Your task to perform on an android device: open wifi settings Image 0: 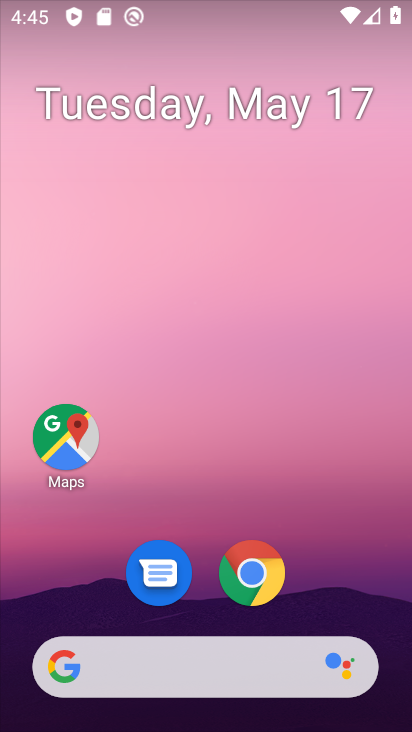
Step 0: press home button
Your task to perform on an android device: open wifi settings Image 1: 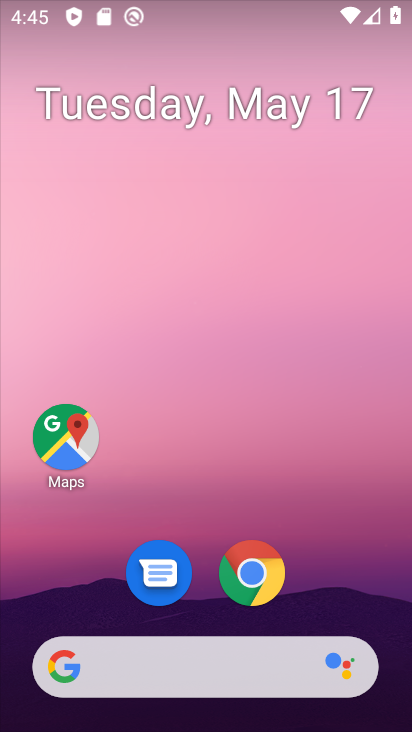
Step 1: click (205, 0)
Your task to perform on an android device: open wifi settings Image 2: 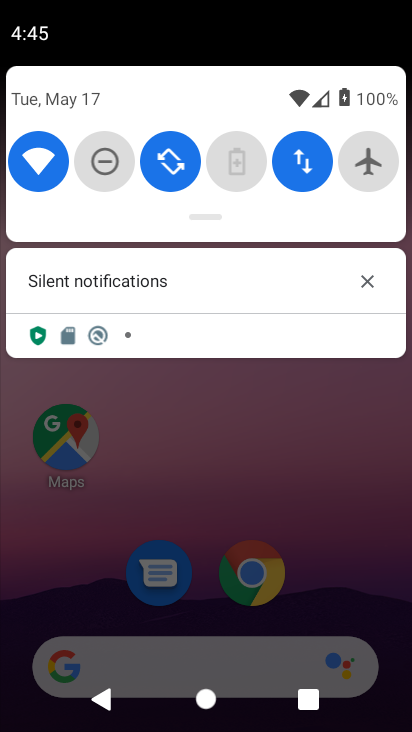
Step 2: drag from (295, 629) to (147, 8)
Your task to perform on an android device: open wifi settings Image 3: 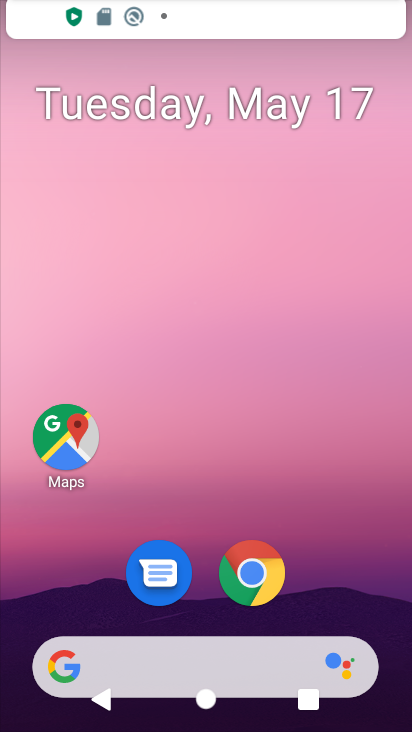
Step 3: drag from (248, 538) to (206, 149)
Your task to perform on an android device: open wifi settings Image 4: 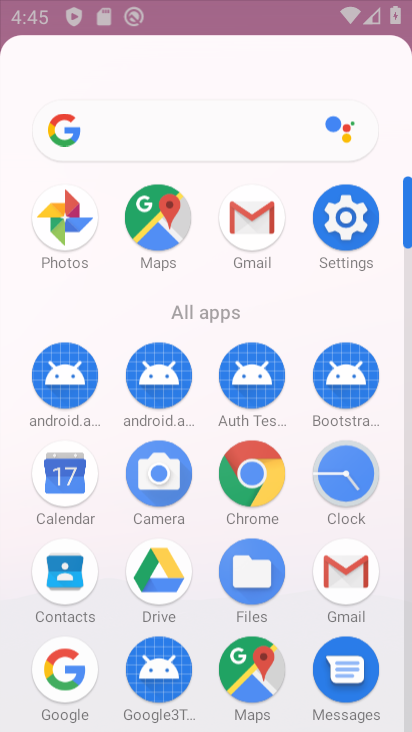
Step 4: drag from (278, 563) to (217, 83)
Your task to perform on an android device: open wifi settings Image 5: 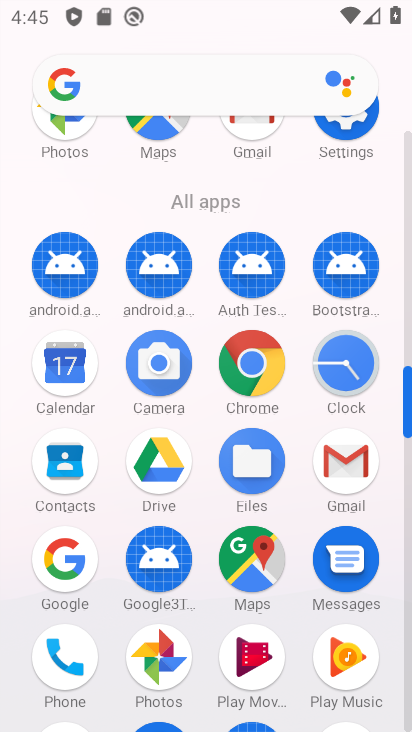
Step 5: drag from (269, 360) to (228, 30)
Your task to perform on an android device: open wifi settings Image 6: 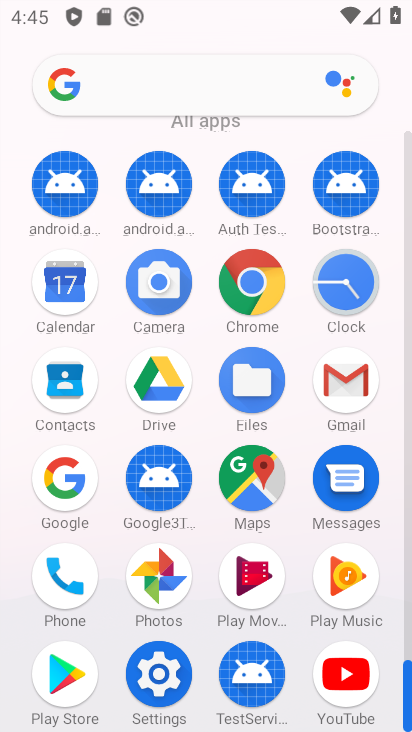
Step 6: drag from (183, 347) to (181, 84)
Your task to perform on an android device: open wifi settings Image 7: 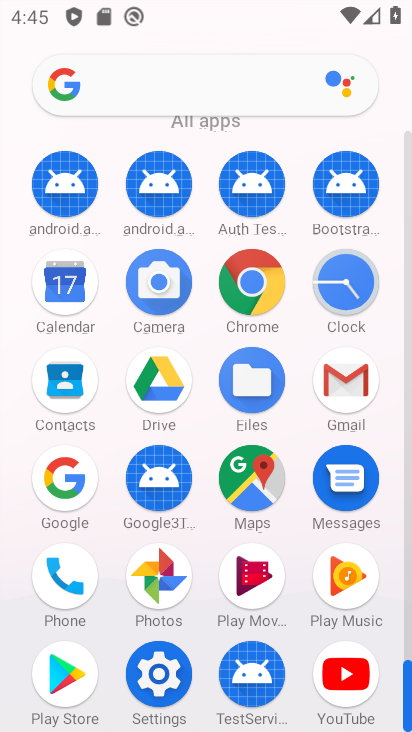
Step 7: drag from (196, 295) to (186, 115)
Your task to perform on an android device: open wifi settings Image 8: 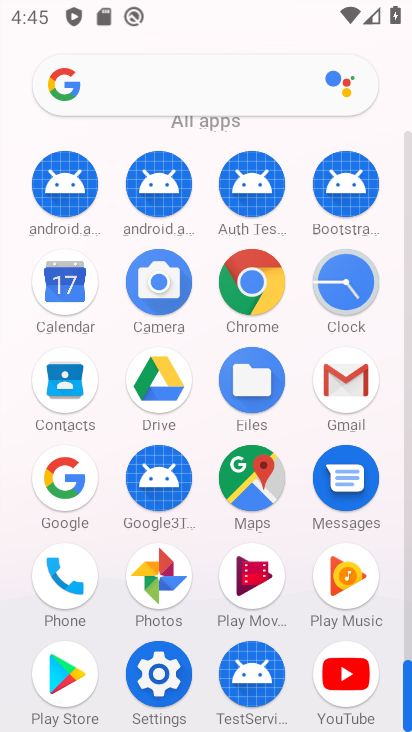
Step 8: drag from (225, 163) to (212, 80)
Your task to perform on an android device: open wifi settings Image 9: 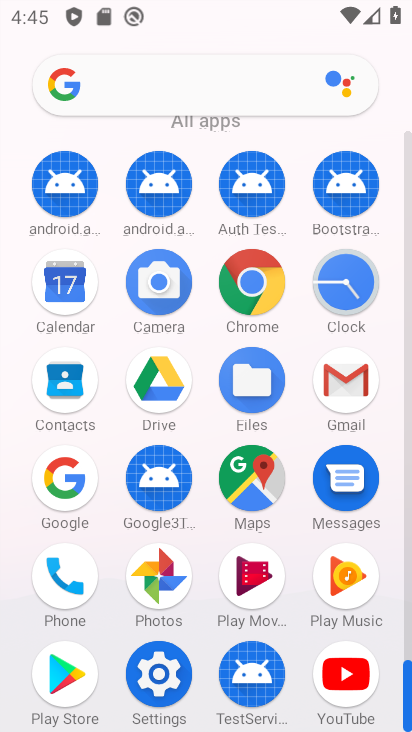
Step 9: drag from (231, 255) to (231, 216)
Your task to perform on an android device: open wifi settings Image 10: 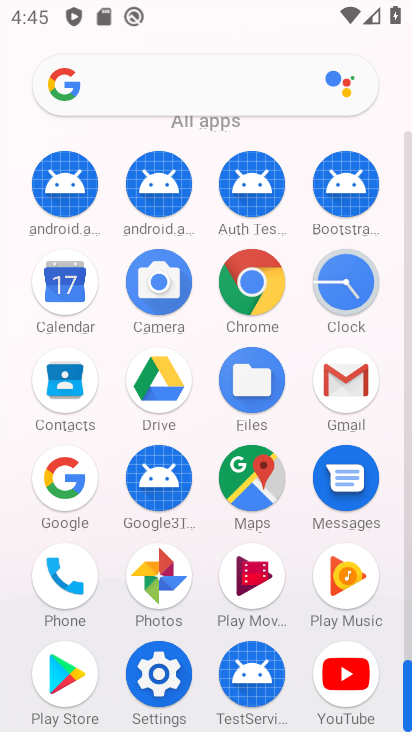
Step 10: drag from (260, 263) to (254, 218)
Your task to perform on an android device: open wifi settings Image 11: 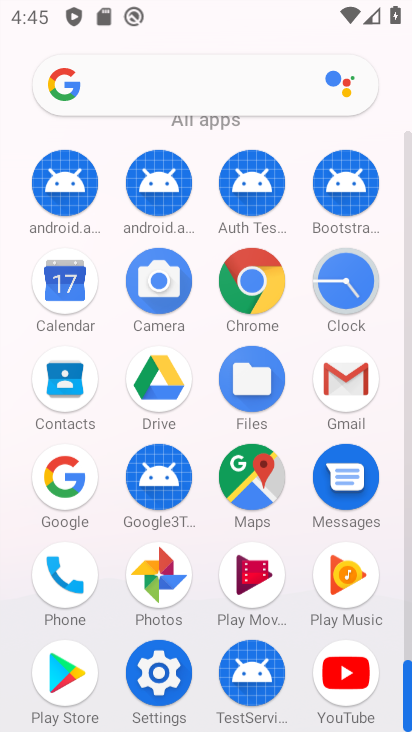
Step 11: drag from (272, 337) to (248, 124)
Your task to perform on an android device: open wifi settings Image 12: 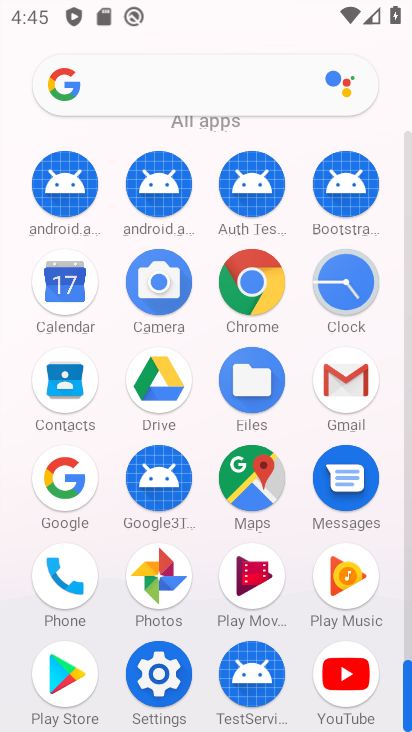
Step 12: drag from (248, 259) to (287, 438)
Your task to perform on an android device: open wifi settings Image 13: 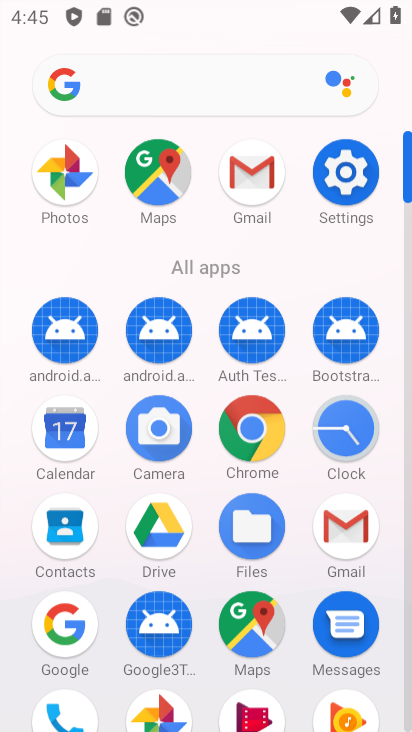
Step 13: drag from (244, 237) to (309, 618)
Your task to perform on an android device: open wifi settings Image 14: 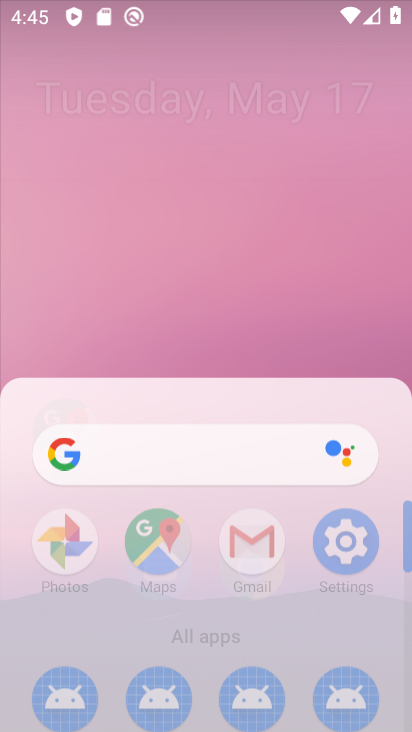
Step 14: drag from (240, 237) to (248, 561)
Your task to perform on an android device: open wifi settings Image 15: 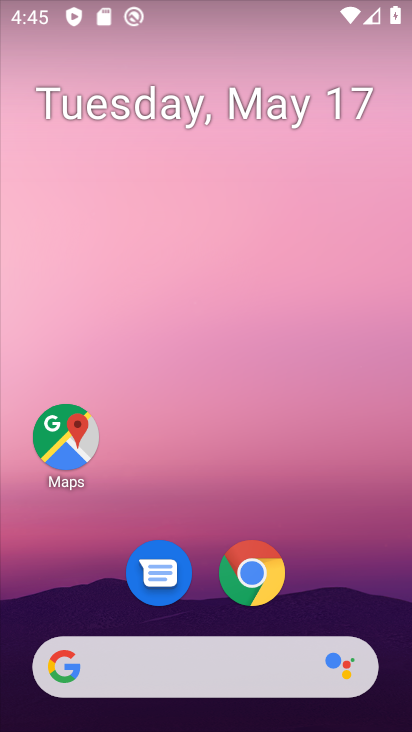
Step 15: drag from (192, 266) to (235, 564)
Your task to perform on an android device: open wifi settings Image 16: 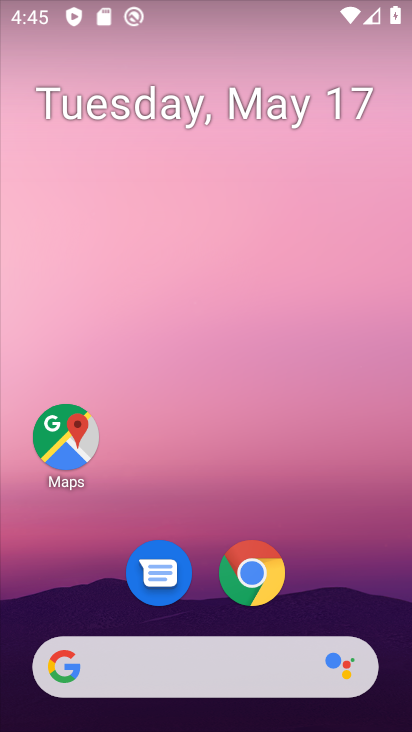
Step 16: drag from (239, 629) to (191, 159)
Your task to perform on an android device: open wifi settings Image 17: 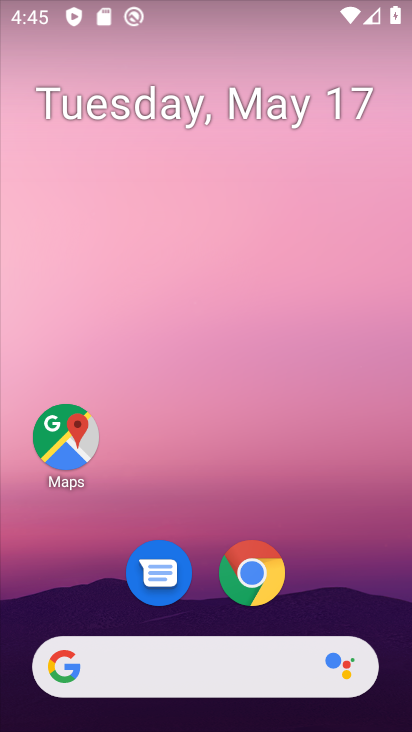
Step 17: drag from (195, 465) to (119, 34)
Your task to perform on an android device: open wifi settings Image 18: 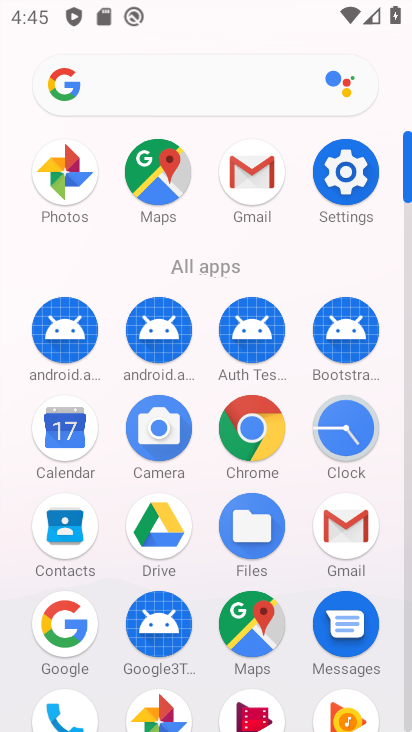
Step 18: drag from (185, 596) to (130, 151)
Your task to perform on an android device: open wifi settings Image 19: 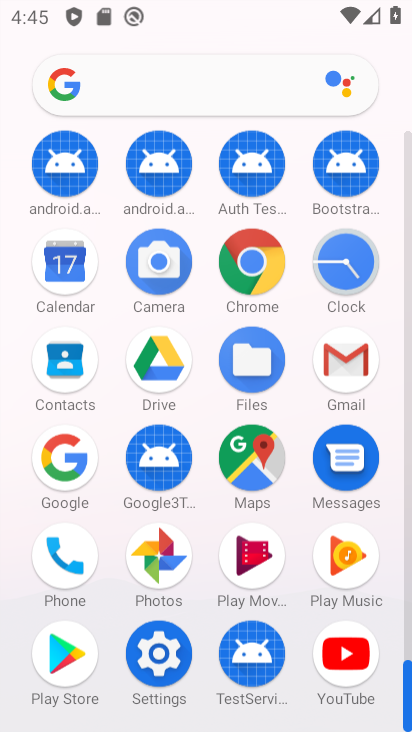
Step 19: drag from (244, 417) to (202, 127)
Your task to perform on an android device: open wifi settings Image 20: 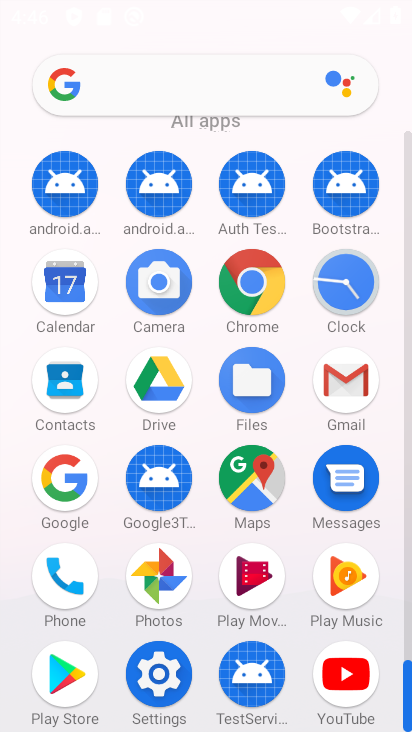
Step 20: click (167, 667)
Your task to perform on an android device: open wifi settings Image 21: 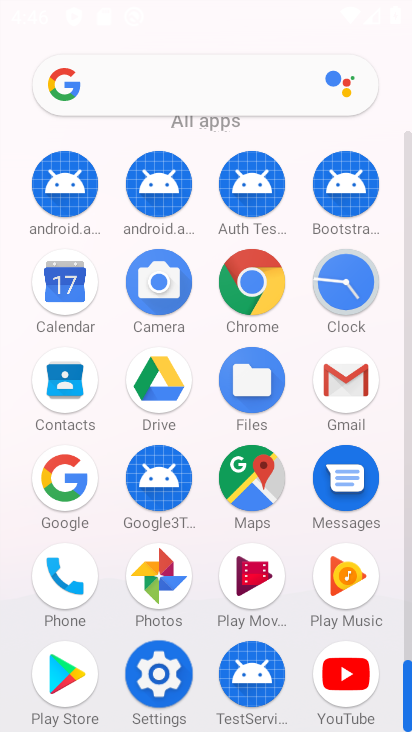
Step 21: click (165, 666)
Your task to perform on an android device: open wifi settings Image 22: 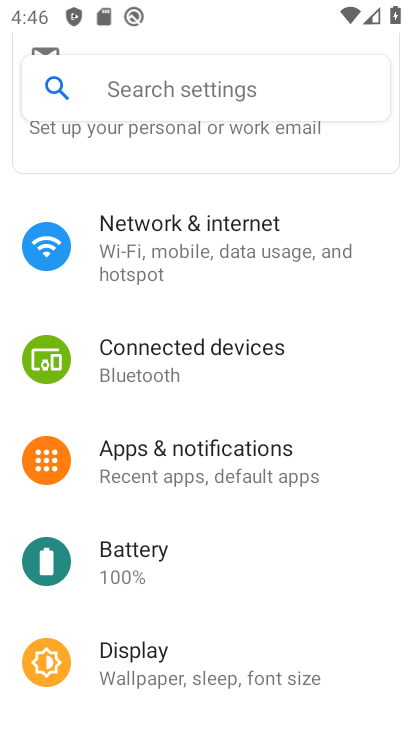
Step 22: click (147, 454)
Your task to perform on an android device: open wifi settings Image 23: 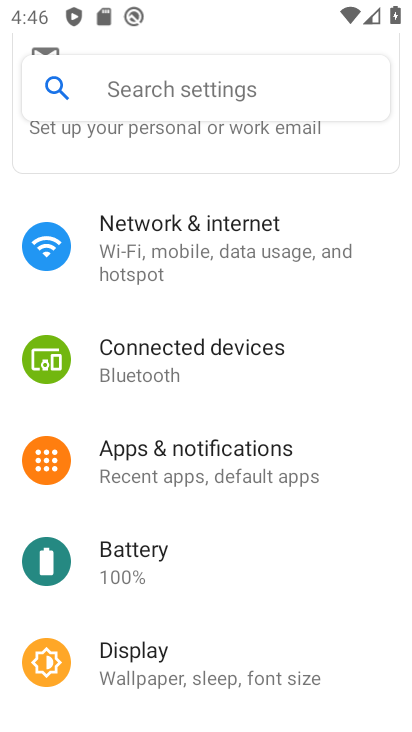
Step 23: click (151, 452)
Your task to perform on an android device: open wifi settings Image 24: 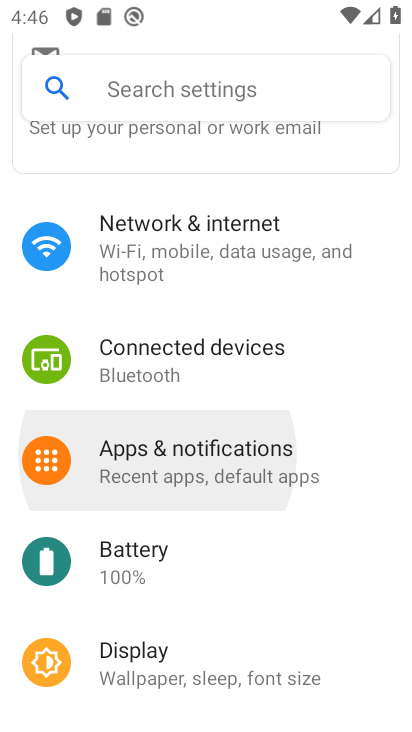
Step 24: click (152, 451)
Your task to perform on an android device: open wifi settings Image 25: 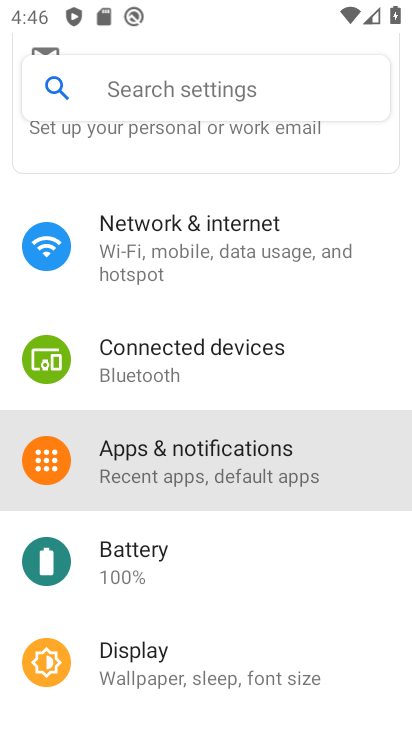
Step 25: click (152, 451)
Your task to perform on an android device: open wifi settings Image 26: 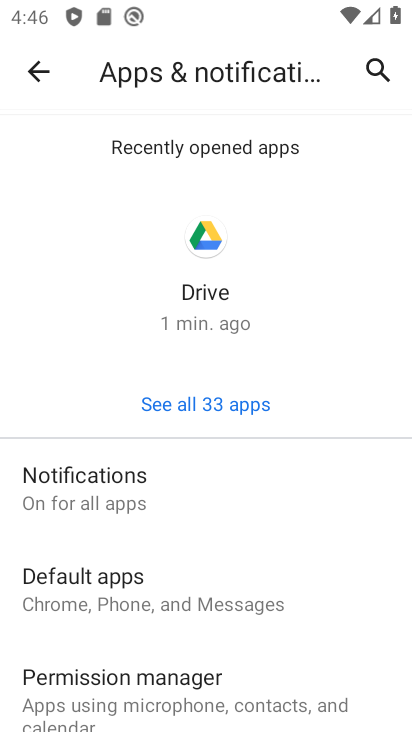
Step 26: drag from (122, 565) to (120, 252)
Your task to perform on an android device: open wifi settings Image 27: 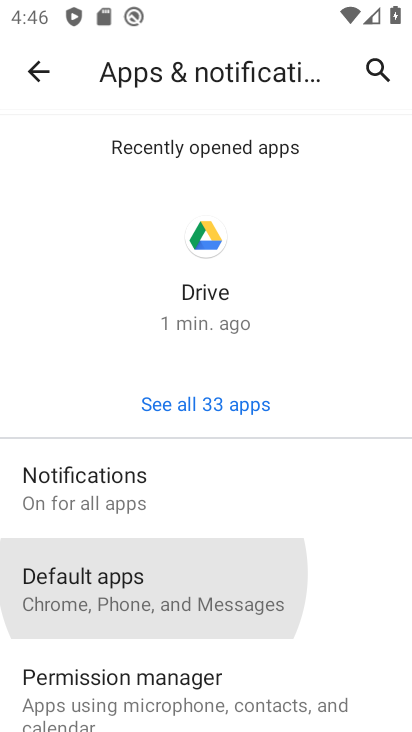
Step 27: drag from (245, 522) to (245, 242)
Your task to perform on an android device: open wifi settings Image 28: 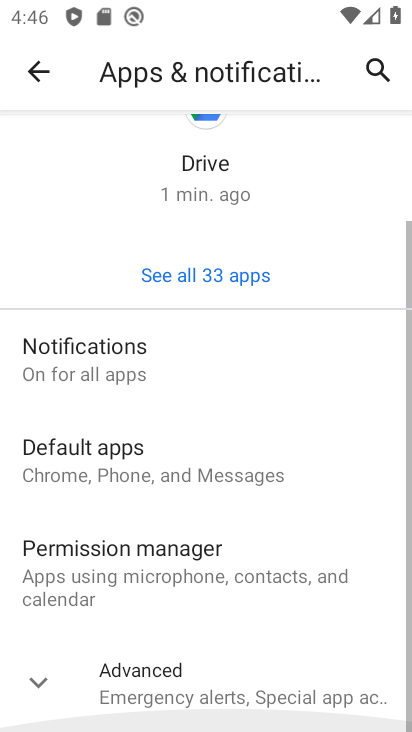
Step 28: drag from (239, 298) to (209, 101)
Your task to perform on an android device: open wifi settings Image 29: 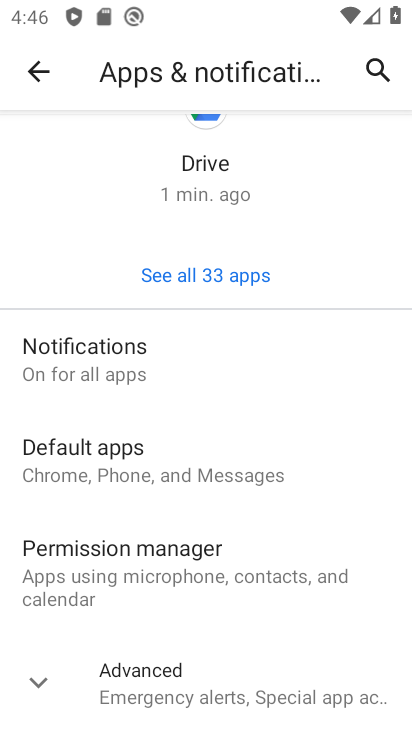
Step 29: click (92, 360)
Your task to perform on an android device: open wifi settings Image 30: 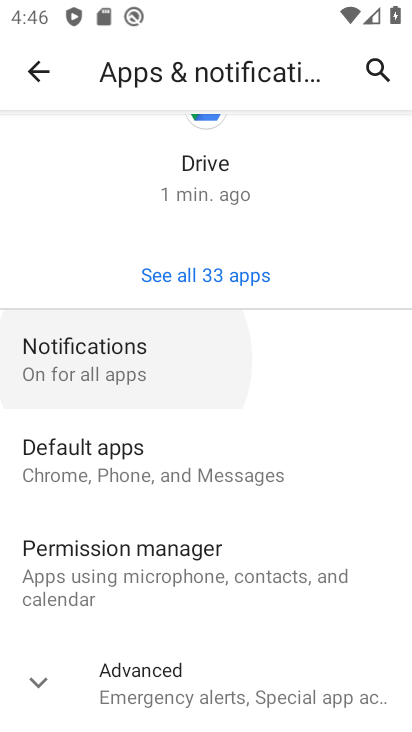
Step 30: click (79, 372)
Your task to perform on an android device: open wifi settings Image 31: 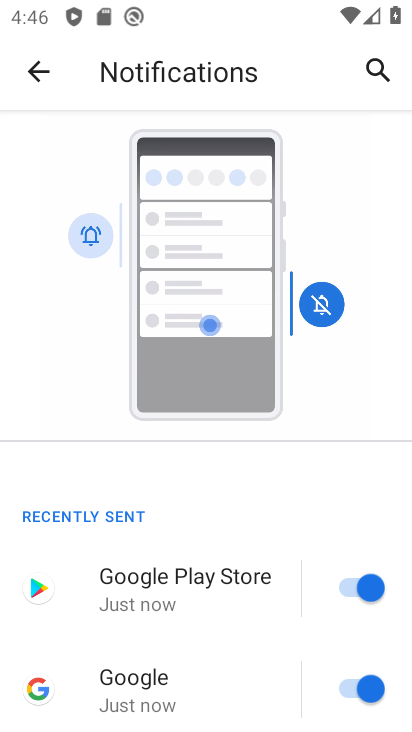
Step 31: drag from (193, 378) to (162, 153)
Your task to perform on an android device: open wifi settings Image 32: 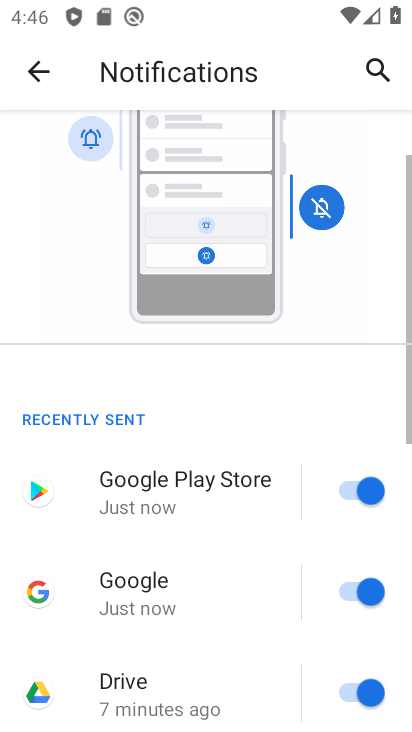
Step 32: drag from (238, 626) to (192, 134)
Your task to perform on an android device: open wifi settings Image 33: 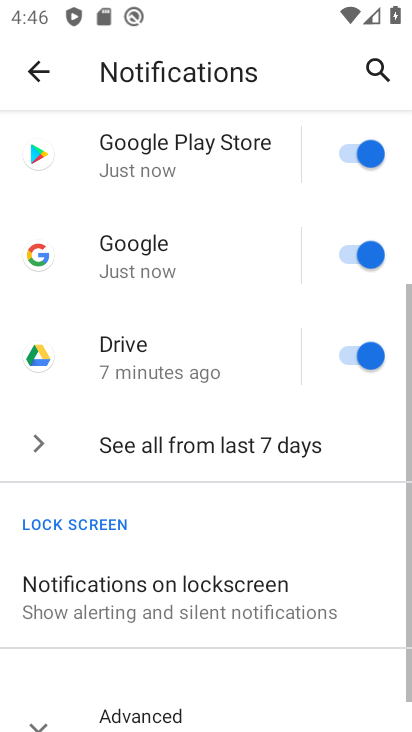
Step 33: drag from (196, 462) to (156, 157)
Your task to perform on an android device: open wifi settings Image 34: 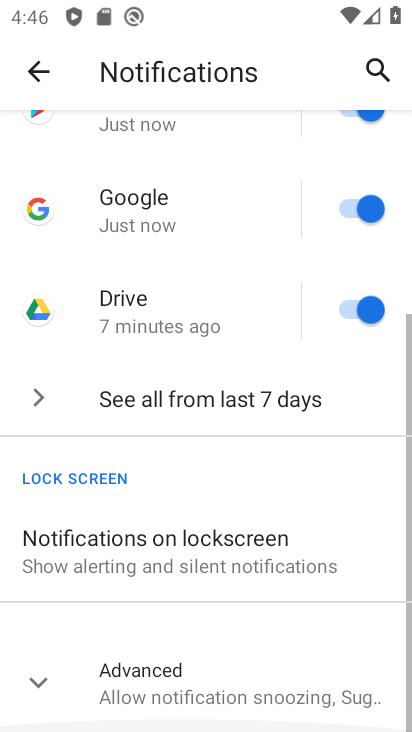
Step 34: drag from (225, 452) to (269, 83)
Your task to perform on an android device: open wifi settings Image 35: 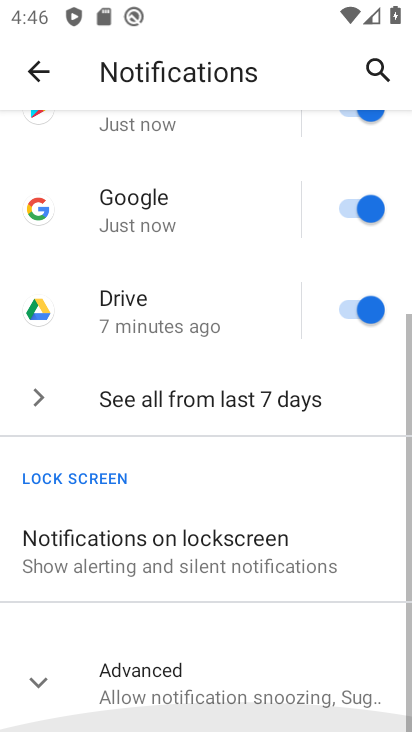
Step 35: drag from (161, 427) to (192, 41)
Your task to perform on an android device: open wifi settings Image 36: 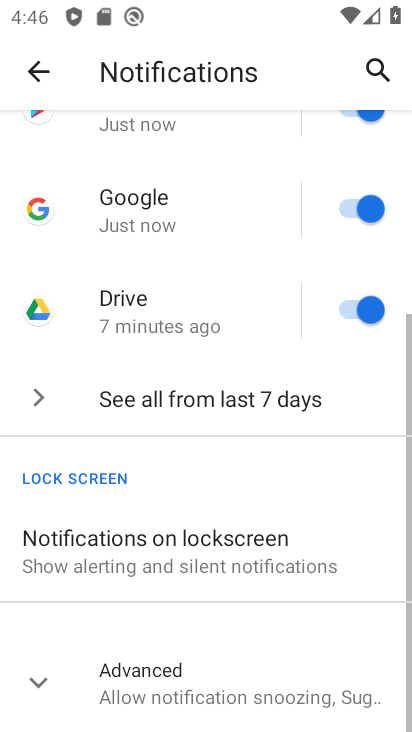
Step 36: drag from (218, 595) to (187, 191)
Your task to perform on an android device: open wifi settings Image 37: 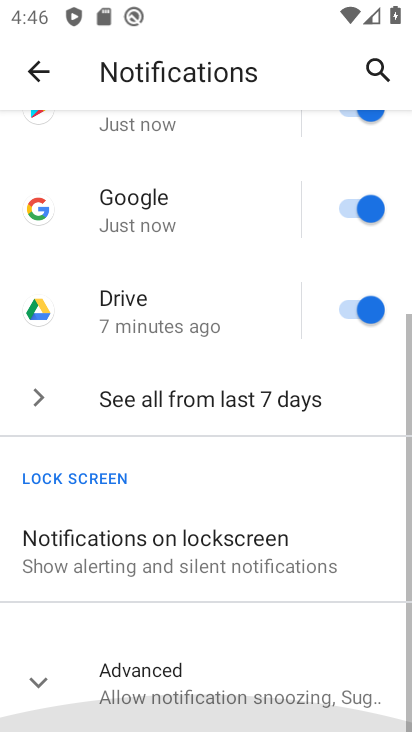
Step 37: drag from (125, 459) to (133, 164)
Your task to perform on an android device: open wifi settings Image 38: 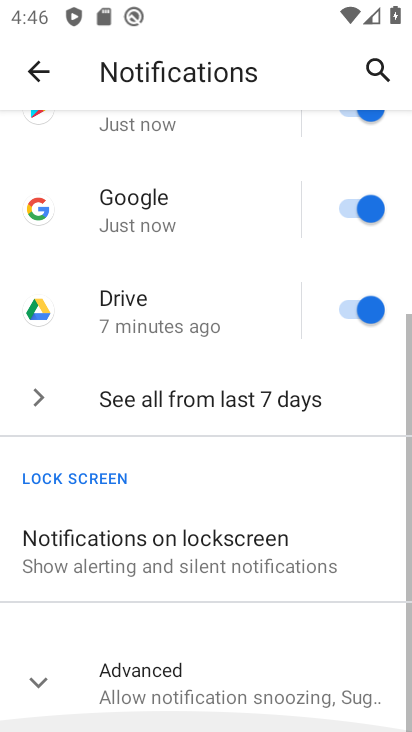
Step 38: drag from (183, 387) to (205, 169)
Your task to perform on an android device: open wifi settings Image 39: 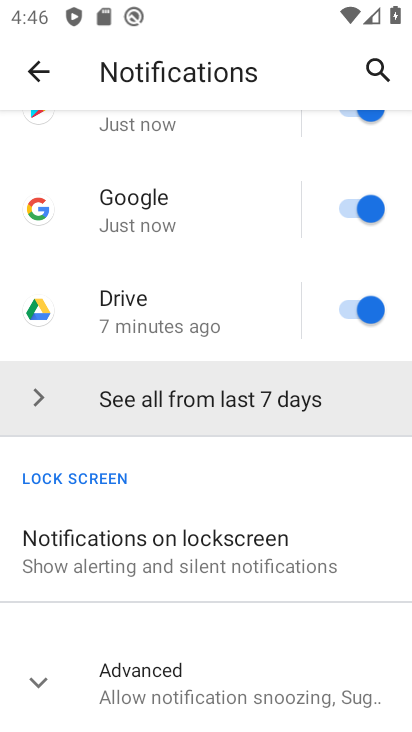
Step 39: drag from (193, 398) to (220, 101)
Your task to perform on an android device: open wifi settings Image 40: 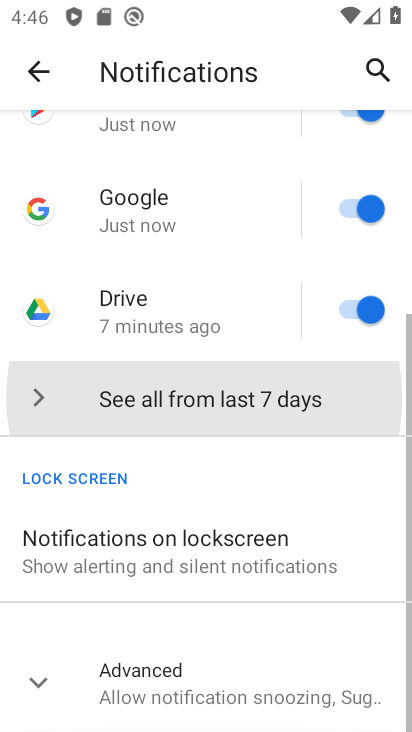
Step 40: drag from (243, 544) to (208, 93)
Your task to perform on an android device: open wifi settings Image 41: 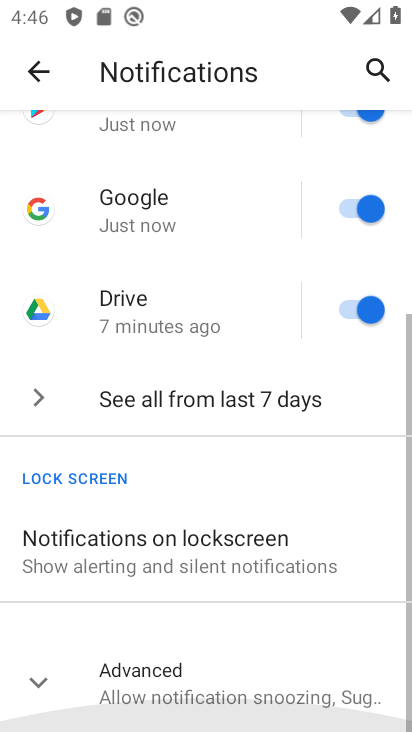
Step 41: drag from (120, 461) to (152, 16)
Your task to perform on an android device: open wifi settings Image 42: 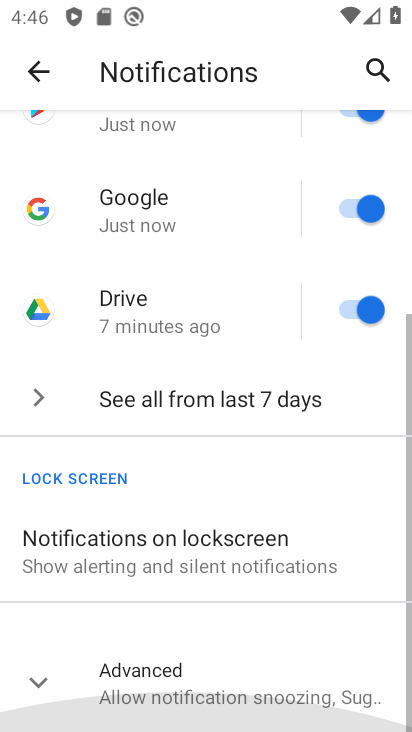
Step 42: drag from (171, 424) to (229, 102)
Your task to perform on an android device: open wifi settings Image 43: 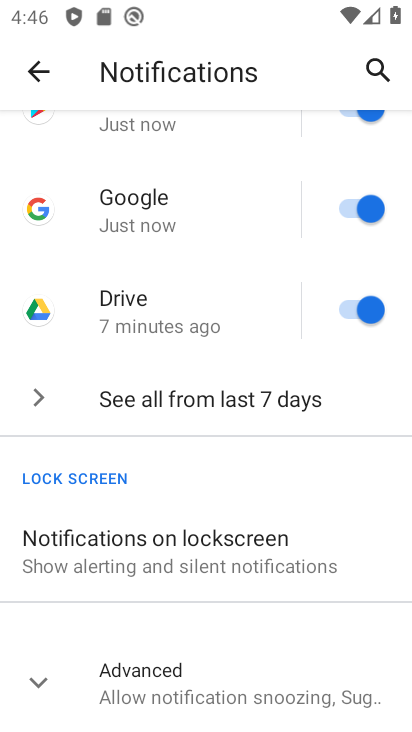
Step 43: drag from (258, 463) to (286, 218)
Your task to perform on an android device: open wifi settings Image 44: 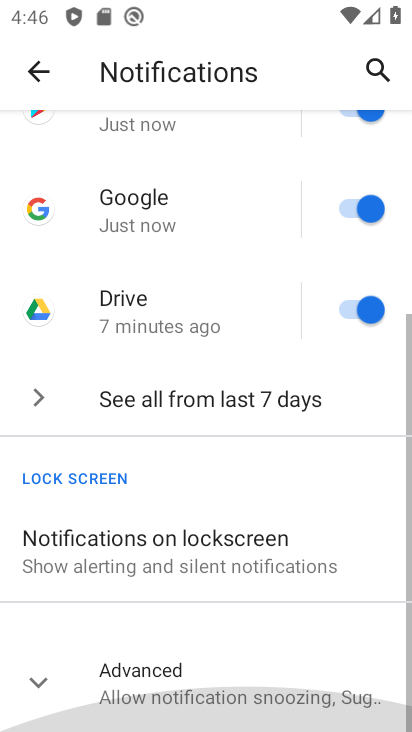
Step 44: drag from (220, 493) to (189, 84)
Your task to perform on an android device: open wifi settings Image 45: 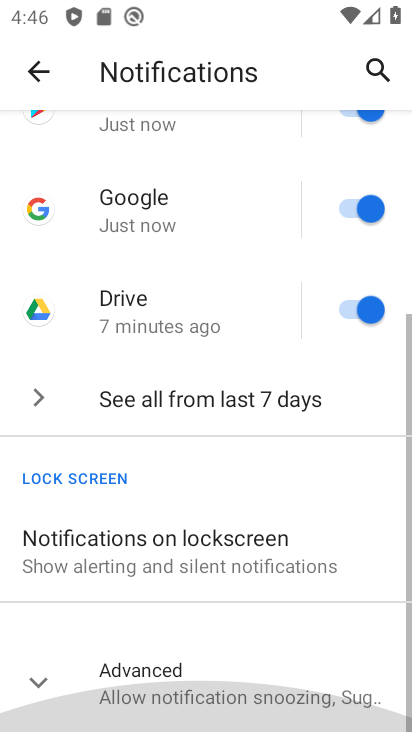
Step 45: drag from (190, 473) to (186, 102)
Your task to perform on an android device: open wifi settings Image 46: 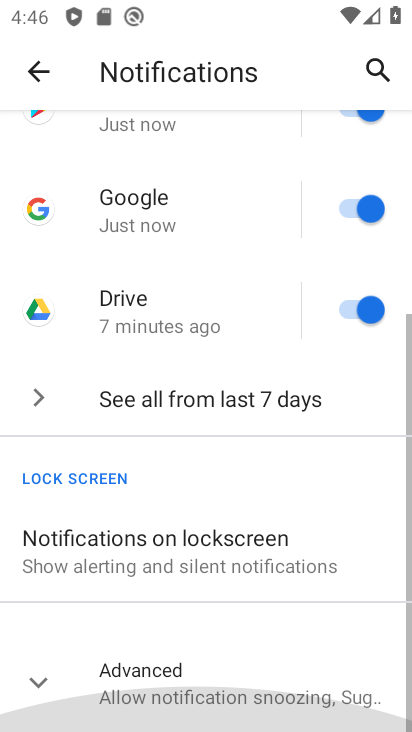
Step 46: drag from (222, 473) to (227, 102)
Your task to perform on an android device: open wifi settings Image 47: 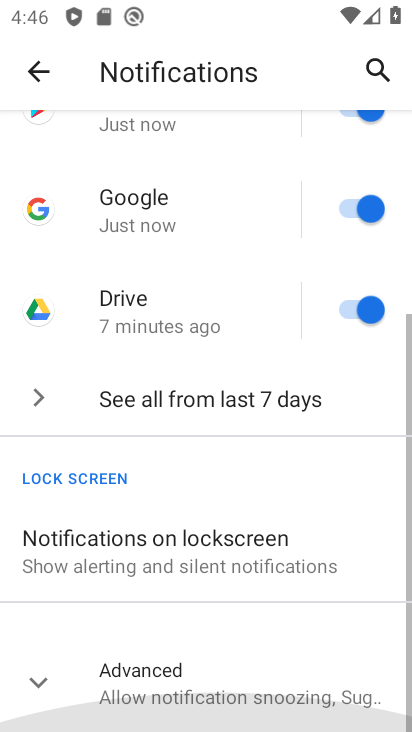
Step 47: drag from (232, 349) to (199, 106)
Your task to perform on an android device: open wifi settings Image 48: 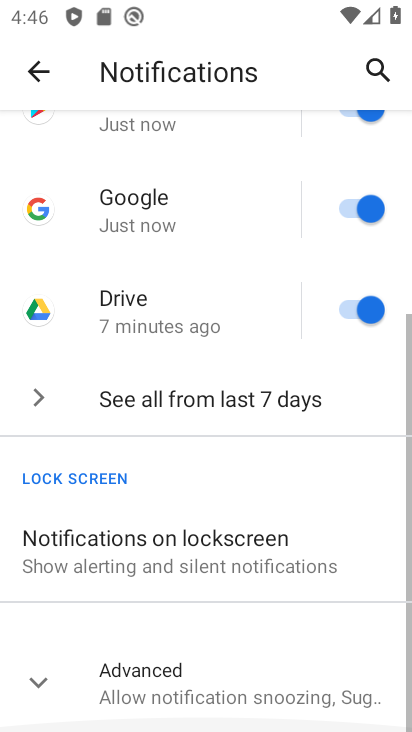
Step 48: drag from (159, 536) to (134, 214)
Your task to perform on an android device: open wifi settings Image 49: 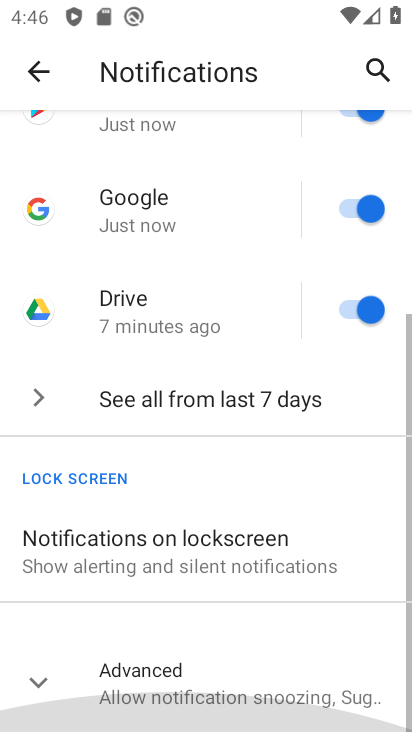
Step 49: drag from (172, 566) to (192, 295)
Your task to perform on an android device: open wifi settings Image 50: 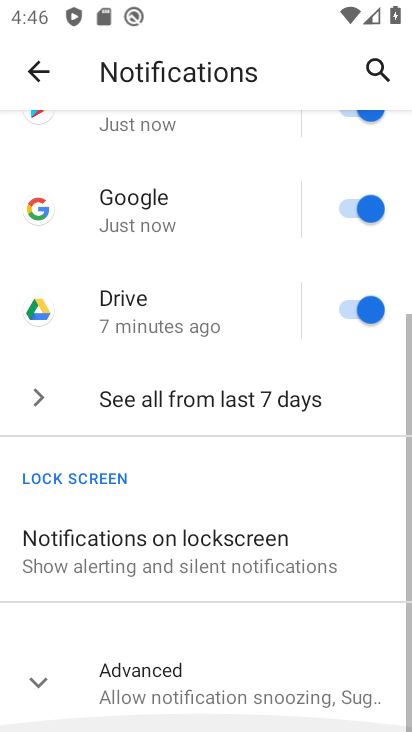
Step 50: drag from (143, 549) to (164, 224)
Your task to perform on an android device: open wifi settings Image 51: 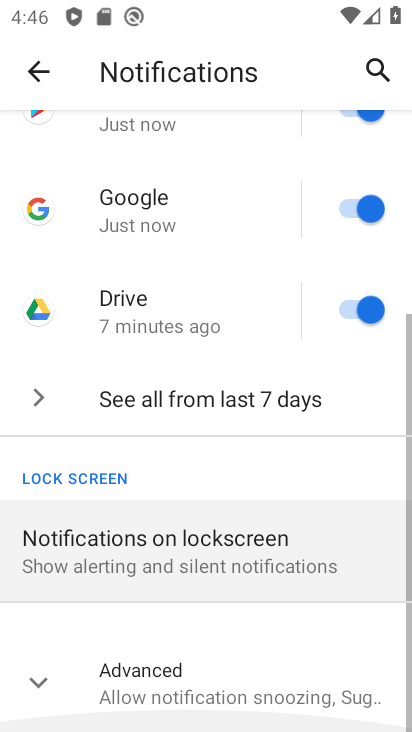
Step 51: drag from (183, 456) to (164, 247)
Your task to perform on an android device: open wifi settings Image 52: 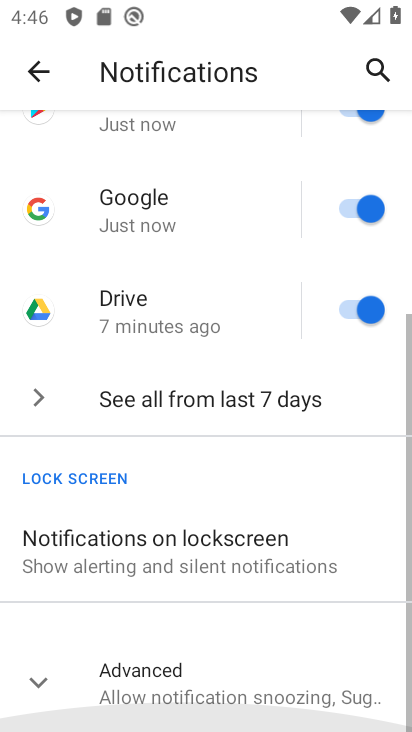
Step 52: drag from (162, 364) to (162, 292)
Your task to perform on an android device: open wifi settings Image 53: 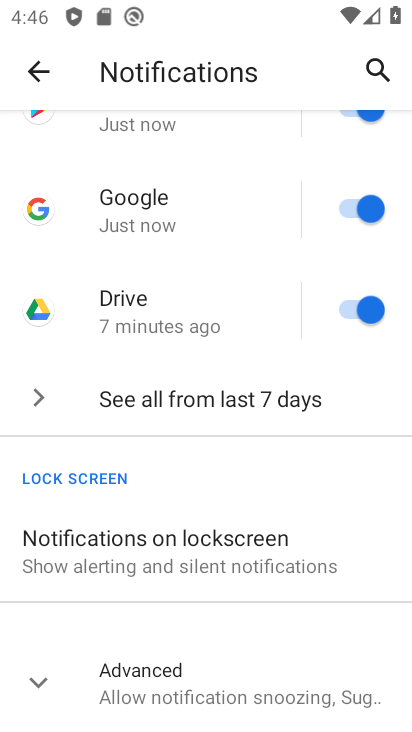
Step 53: drag from (185, 593) to (171, 279)
Your task to perform on an android device: open wifi settings Image 54: 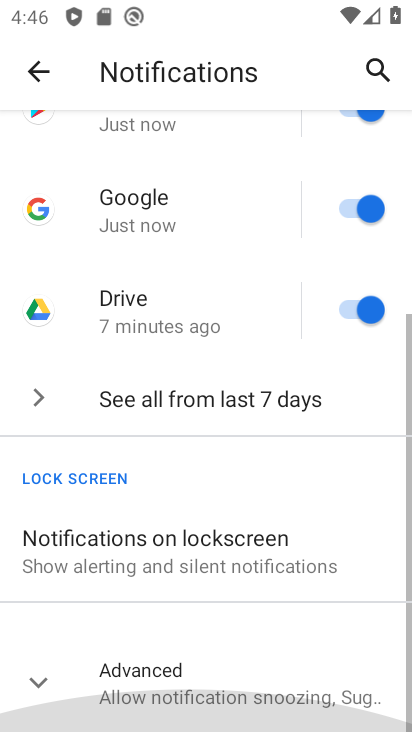
Step 54: drag from (164, 646) to (187, 192)
Your task to perform on an android device: open wifi settings Image 55: 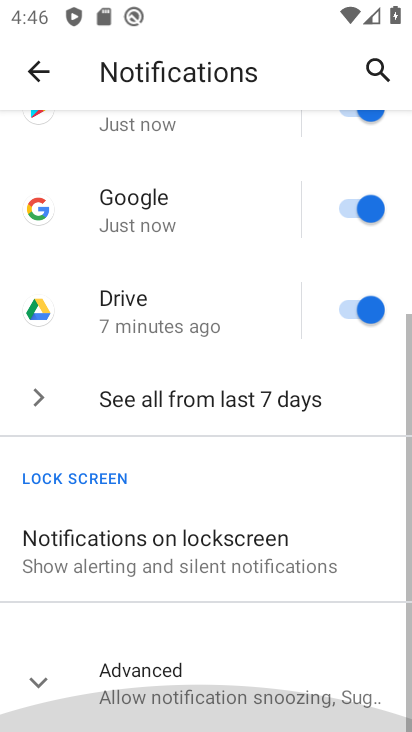
Step 55: drag from (170, 598) to (172, 189)
Your task to perform on an android device: open wifi settings Image 56: 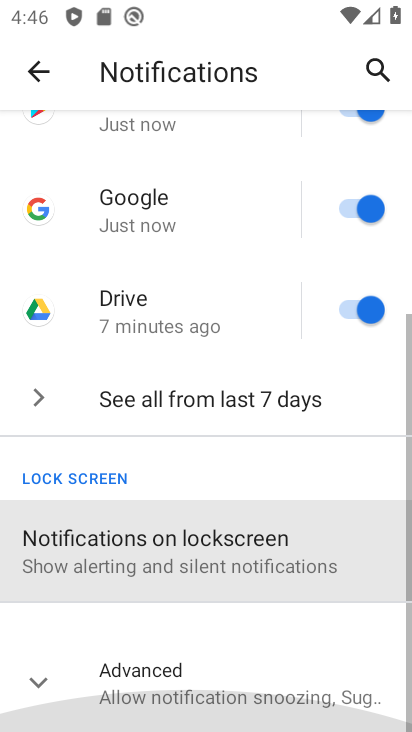
Step 56: drag from (184, 479) to (210, 134)
Your task to perform on an android device: open wifi settings Image 57: 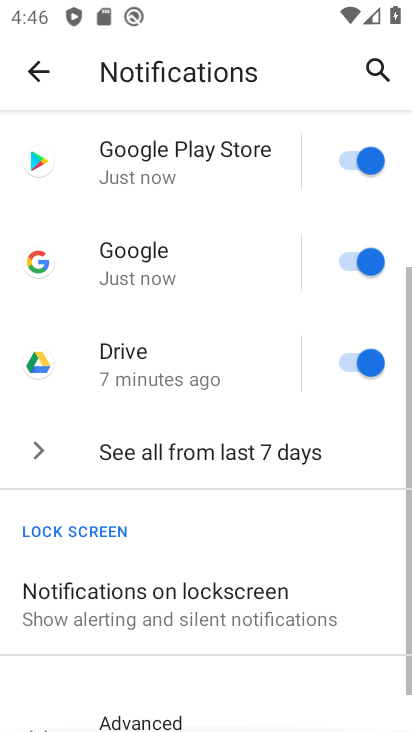
Step 57: drag from (168, 484) to (215, 146)
Your task to perform on an android device: open wifi settings Image 58: 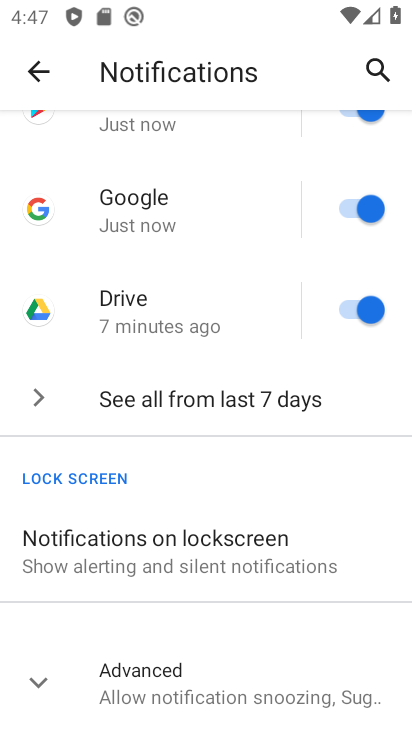
Step 58: click (154, 300)
Your task to perform on an android device: open wifi settings Image 59: 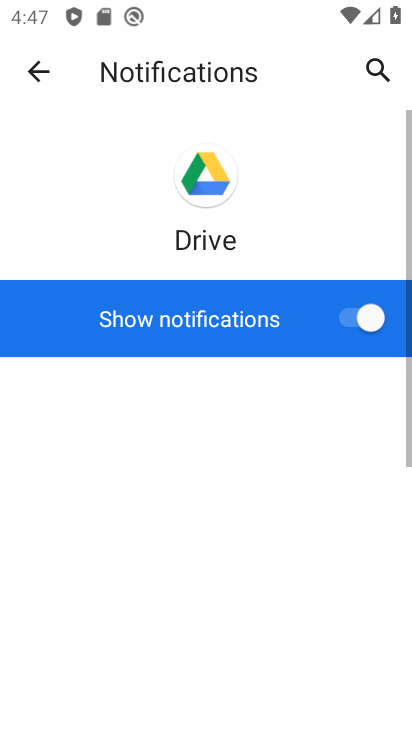
Step 59: drag from (150, 388) to (184, 194)
Your task to perform on an android device: open wifi settings Image 60: 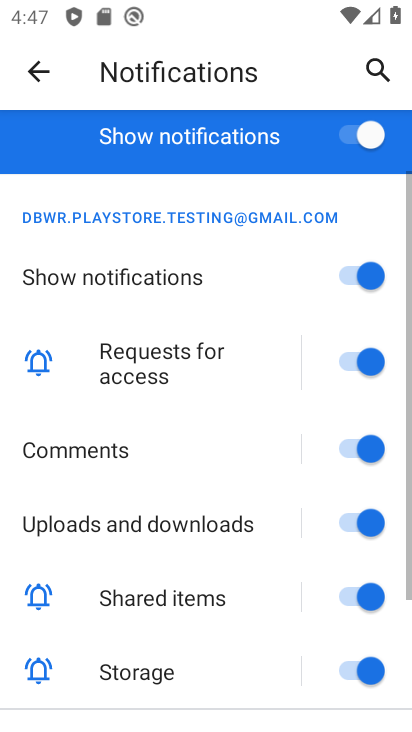
Step 60: drag from (178, 432) to (190, 272)
Your task to perform on an android device: open wifi settings Image 61: 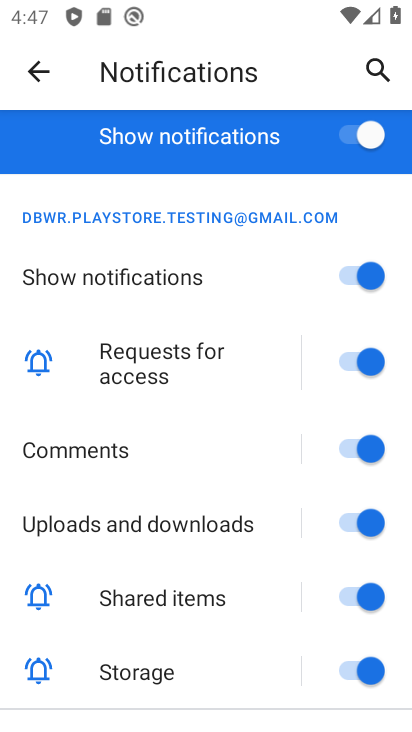
Step 61: click (32, 73)
Your task to perform on an android device: open wifi settings Image 62: 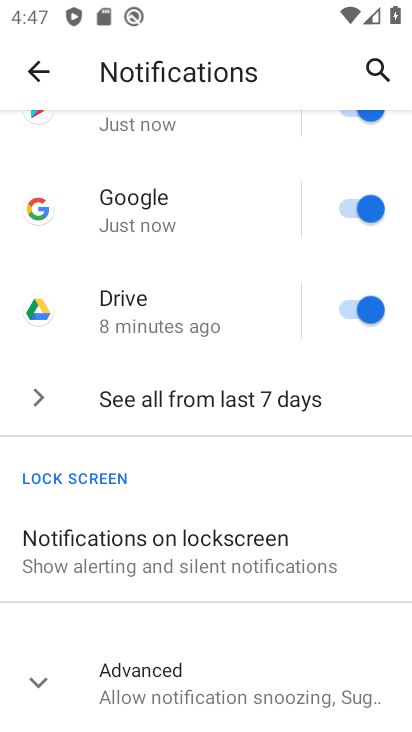
Step 62: click (74, 74)
Your task to perform on an android device: open wifi settings Image 63: 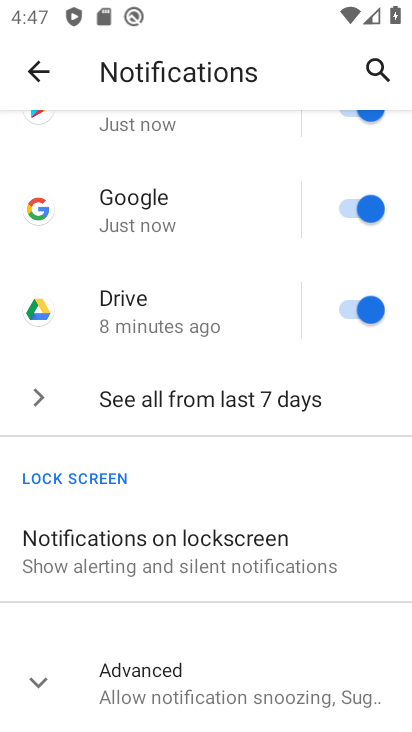
Step 63: click (43, 69)
Your task to perform on an android device: open wifi settings Image 64: 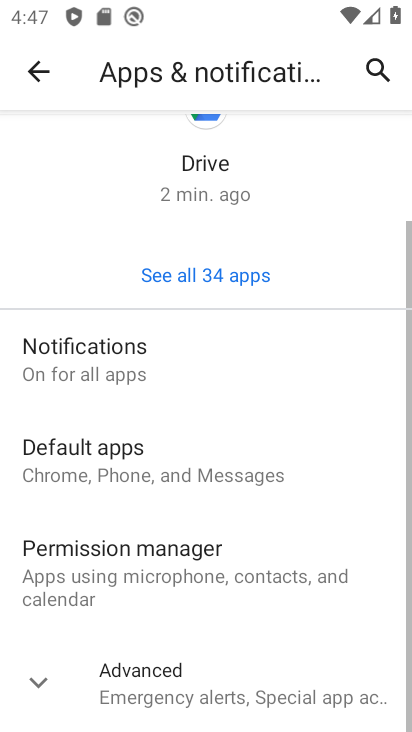
Step 64: click (76, 364)
Your task to perform on an android device: open wifi settings Image 65: 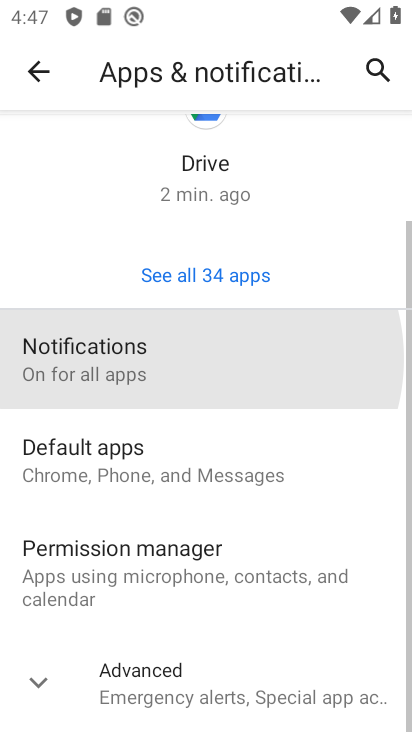
Step 65: click (74, 360)
Your task to perform on an android device: open wifi settings Image 66: 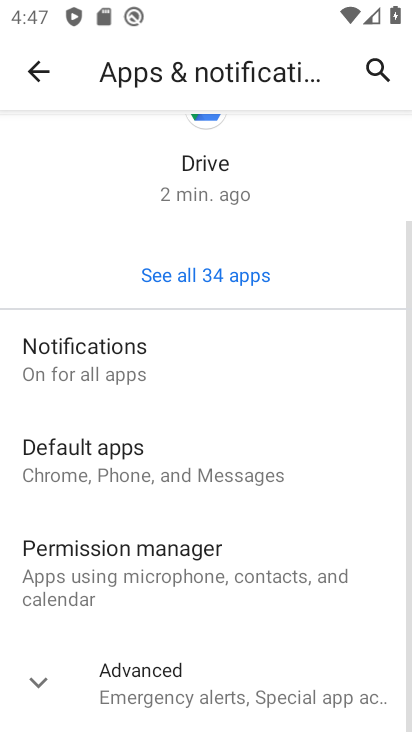
Step 66: click (76, 360)
Your task to perform on an android device: open wifi settings Image 67: 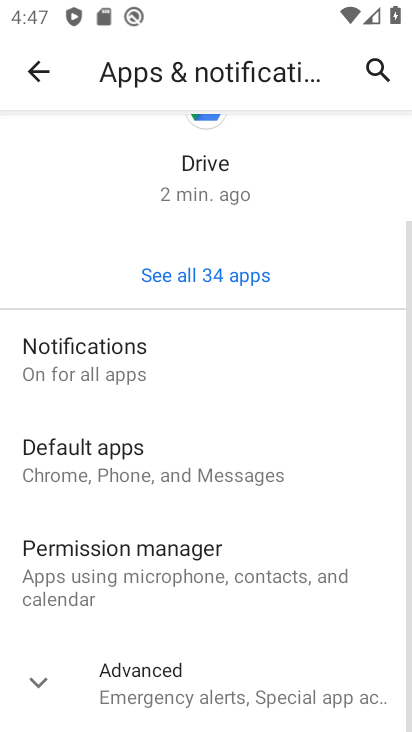
Step 67: click (80, 363)
Your task to perform on an android device: open wifi settings Image 68: 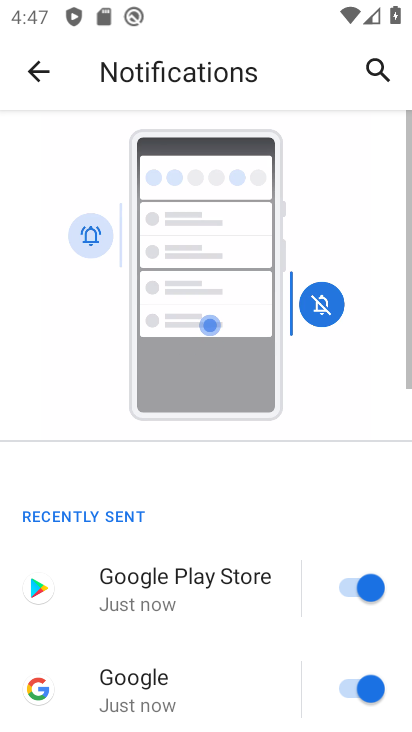
Step 68: drag from (164, 512) to (153, 311)
Your task to perform on an android device: open wifi settings Image 69: 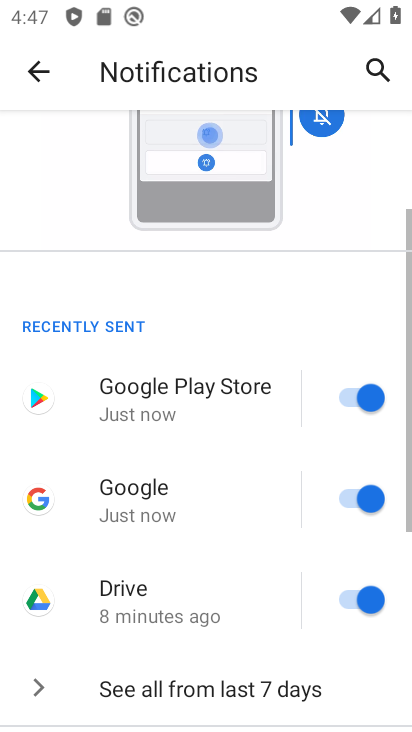
Step 69: drag from (173, 542) to (193, 192)
Your task to perform on an android device: open wifi settings Image 70: 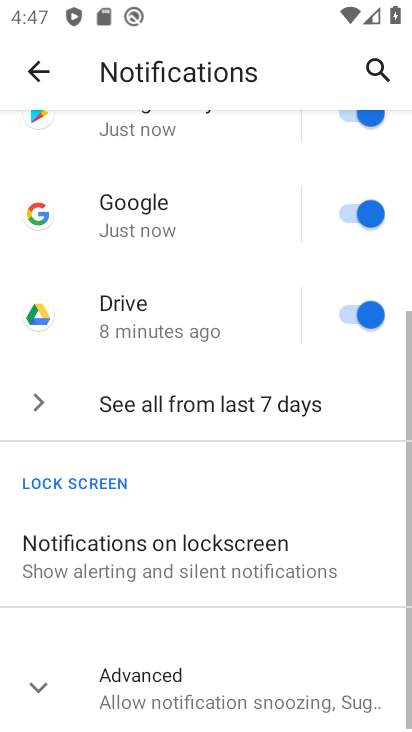
Step 70: drag from (174, 502) to (186, 167)
Your task to perform on an android device: open wifi settings Image 71: 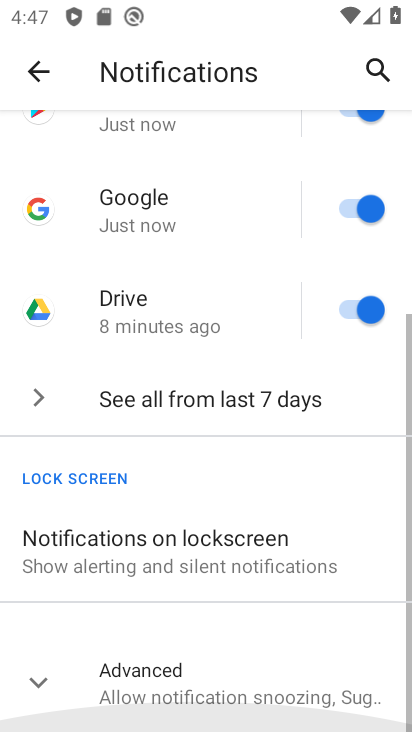
Step 71: drag from (203, 545) to (214, 231)
Your task to perform on an android device: open wifi settings Image 72: 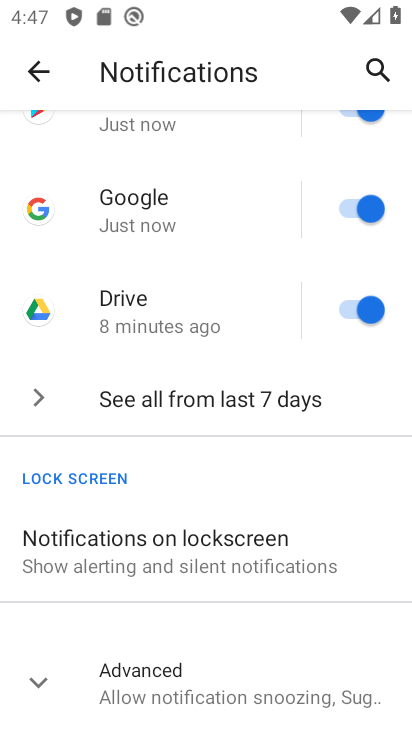
Step 72: click (158, 680)
Your task to perform on an android device: open wifi settings Image 73: 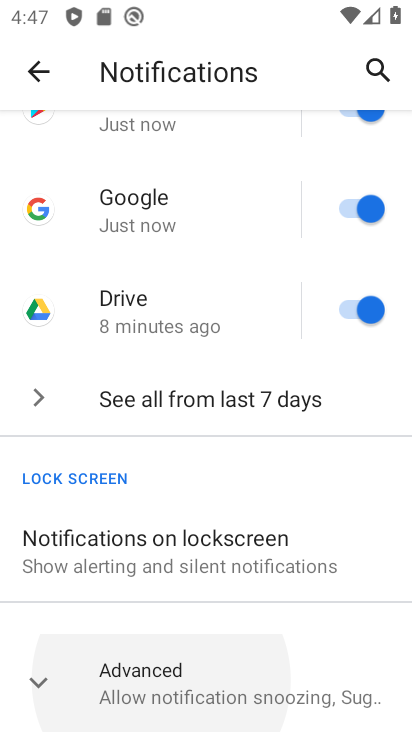
Step 73: click (157, 680)
Your task to perform on an android device: open wifi settings Image 74: 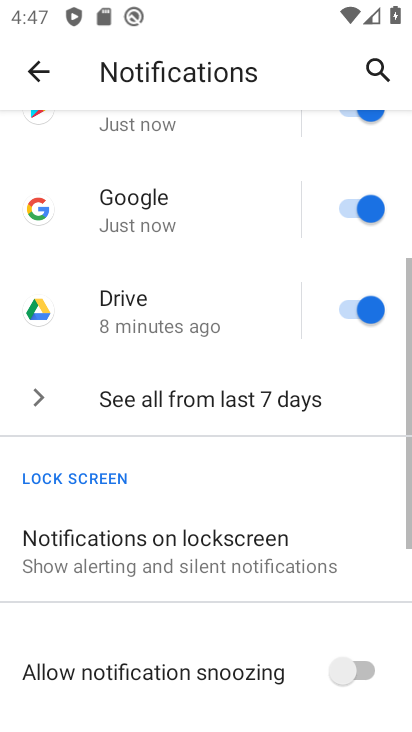
Step 74: drag from (112, 472) to (149, 292)
Your task to perform on an android device: open wifi settings Image 75: 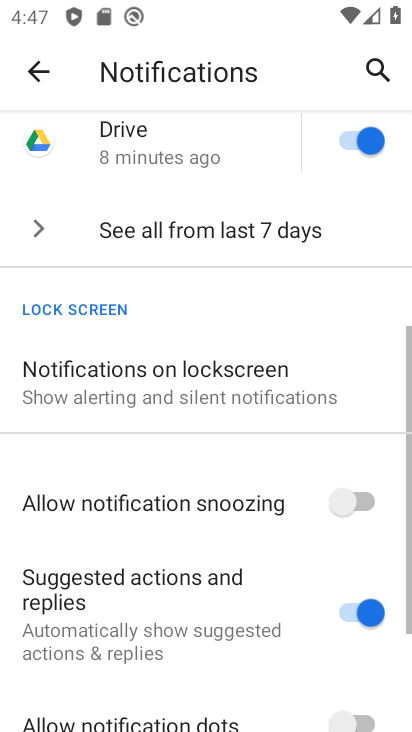
Step 75: drag from (168, 349) to (177, 52)
Your task to perform on an android device: open wifi settings Image 76: 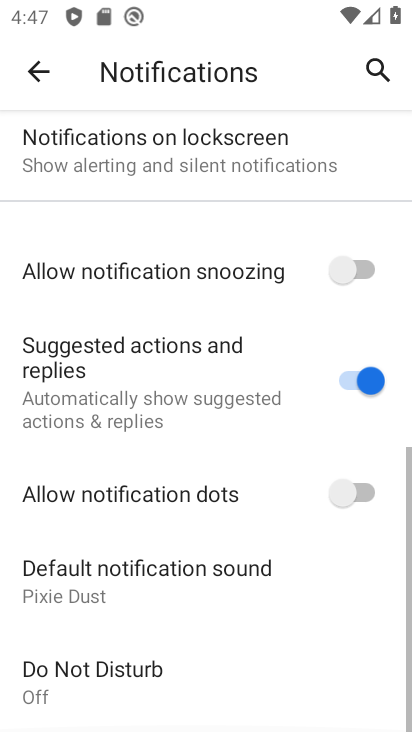
Step 76: drag from (226, 466) to (214, 163)
Your task to perform on an android device: open wifi settings Image 77: 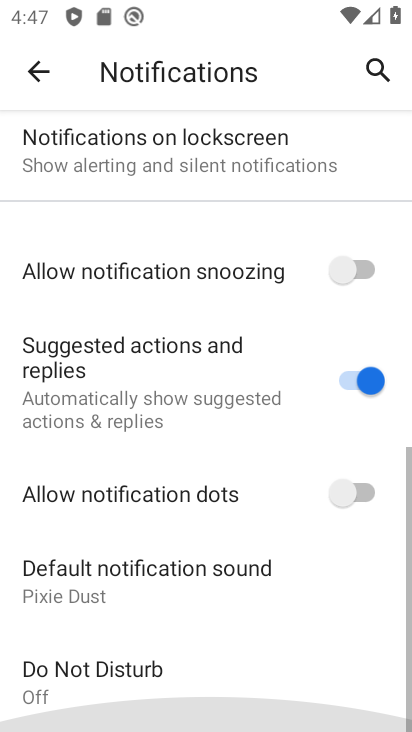
Step 77: drag from (187, 490) to (149, 157)
Your task to perform on an android device: open wifi settings Image 78: 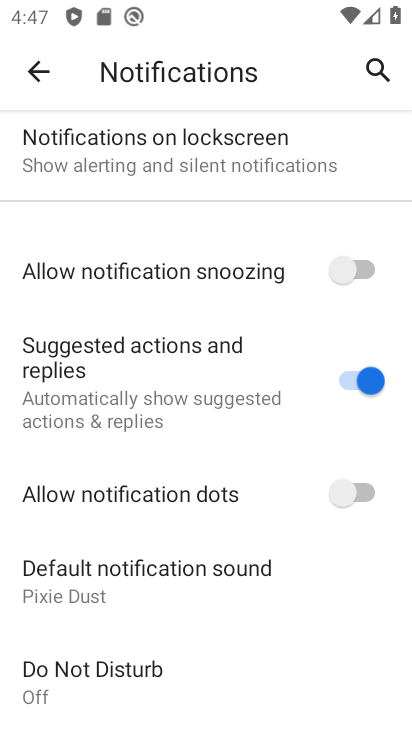
Step 78: click (33, 66)
Your task to perform on an android device: open wifi settings Image 79: 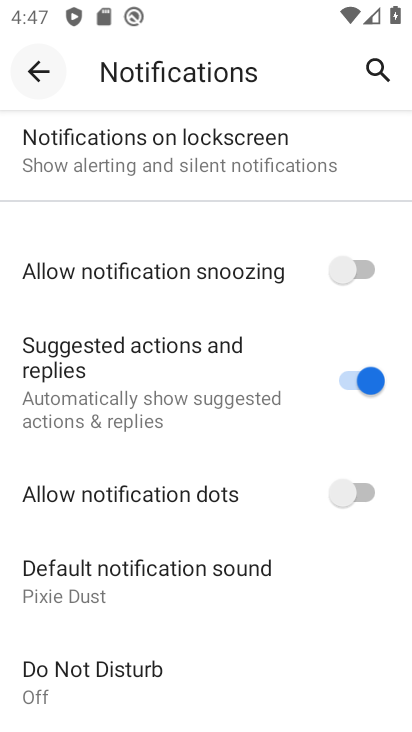
Step 79: click (28, 70)
Your task to perform on an android device: open wifi settings Image 80: 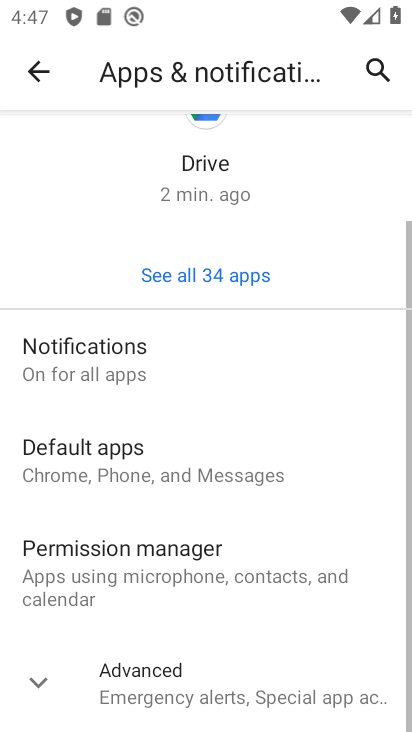
Step 80: click (34, 64)
Your task to perform on an android device: open wifi settings Image 81: 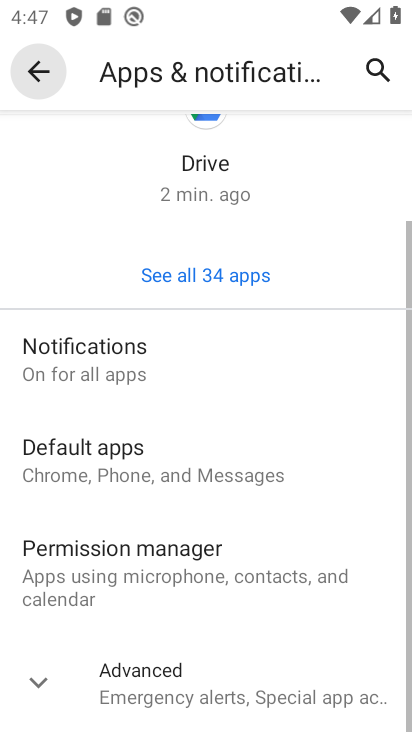
Step 81: click (37, 82)
Your task to perform on an android device: open wifi settings Image 82: 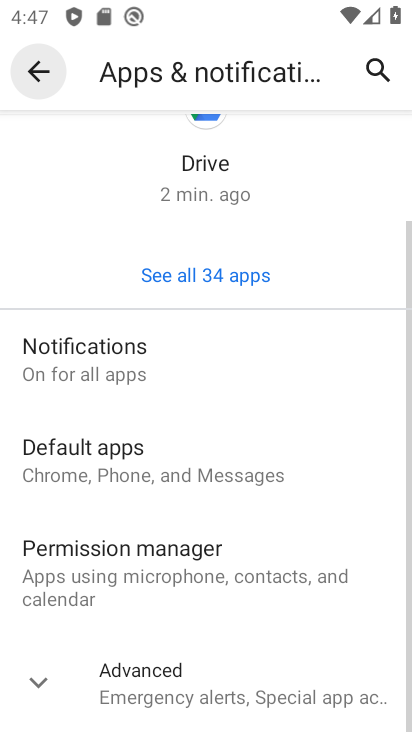
Step 82: click (38, 90)
Your task to perform on an android device: open wifi settings Image 83: 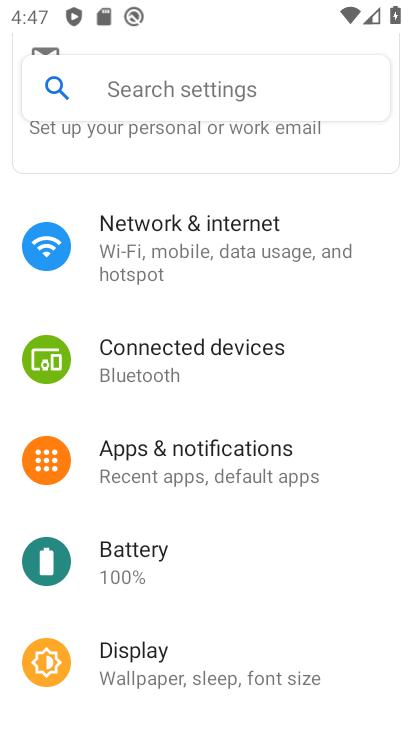
Step 83: drag from (190, 184) to (223, 603)
Your task to perform on an android device: open wifi settings Image 84: 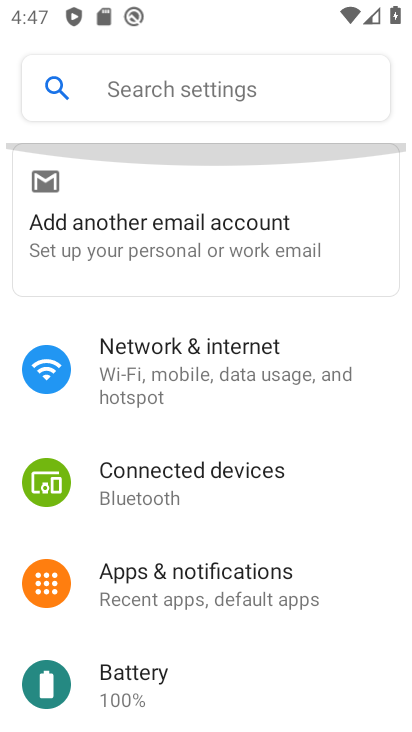
Step 84: drag from (223, 202) to (229, 536)
Your task to perform on an android device: open wifi settings Image 85: 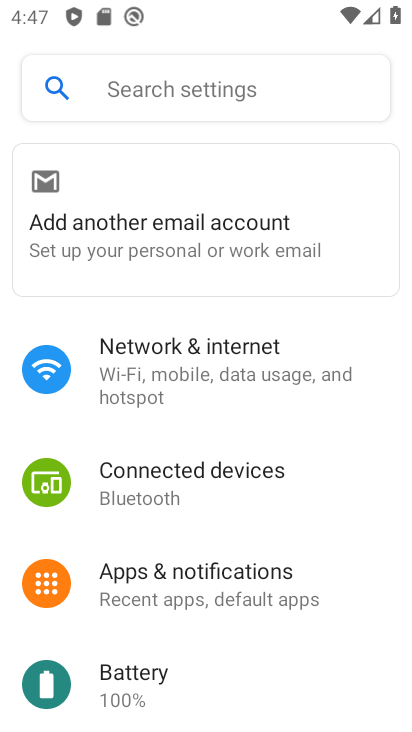
Step 85: click (163, 379)
Your task to perform on an android device: open wifi settings Image 86: 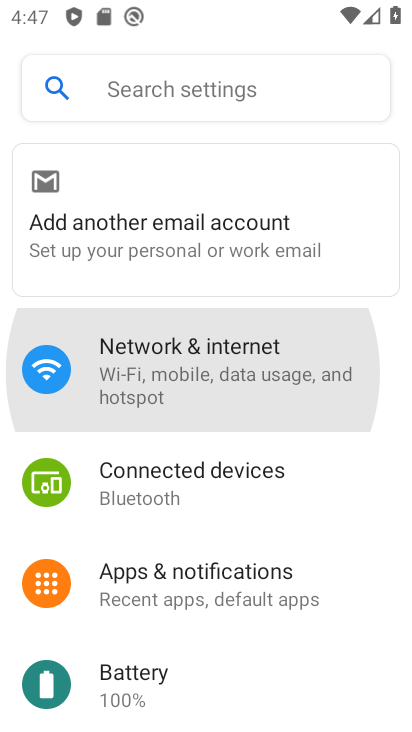
Step 86: click (119, 338)
Your task to perform on an android device: open wifi settings Image 87: 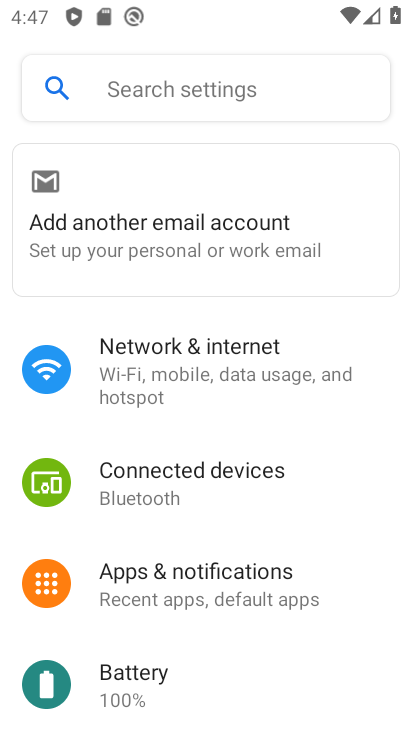
Step 87: click (128, 356)
Your task to perform on an android device: open wifi settings Image 88: 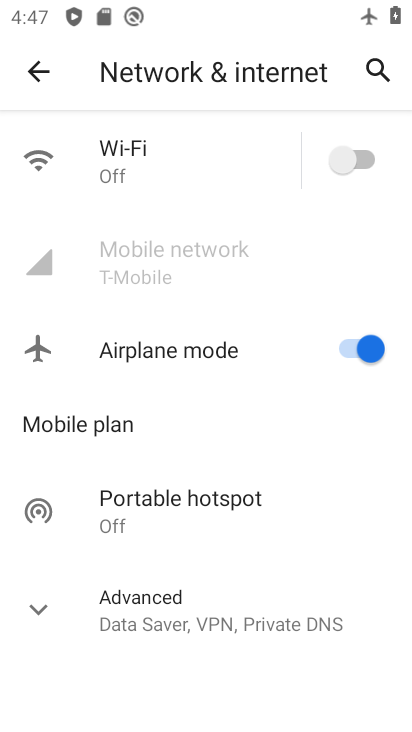
Step 88: click (348, 153)
Your task to perform on an android device: open wifi settings Image 89: 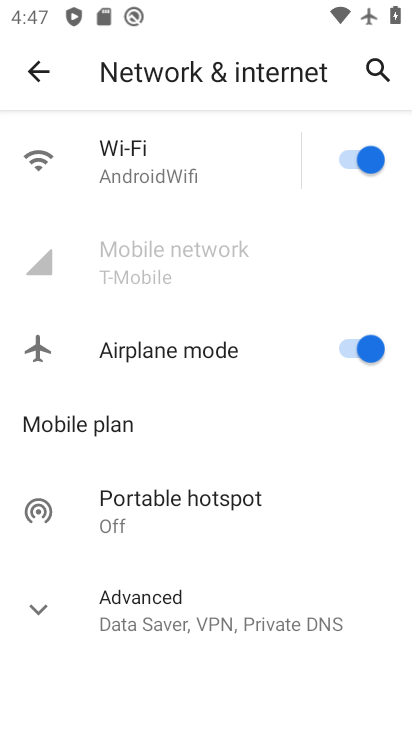
Step 89: task complete